Your task to perform on an android device: check the backup settings in the google photos Image 0: 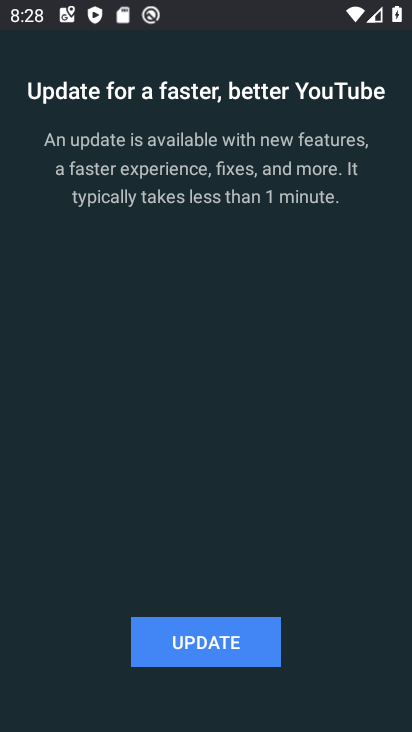
Step 0: press home button
Your task to perform on an android device: check the backup settings in the google photos Image 1: 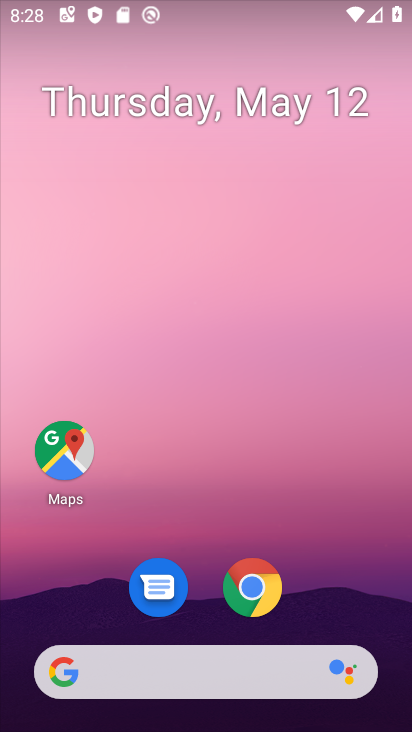
Step 1: drag from (333, 625) to (355, 109)
Your task to perform on an android device: check the backup settings in the google photos Image 2: 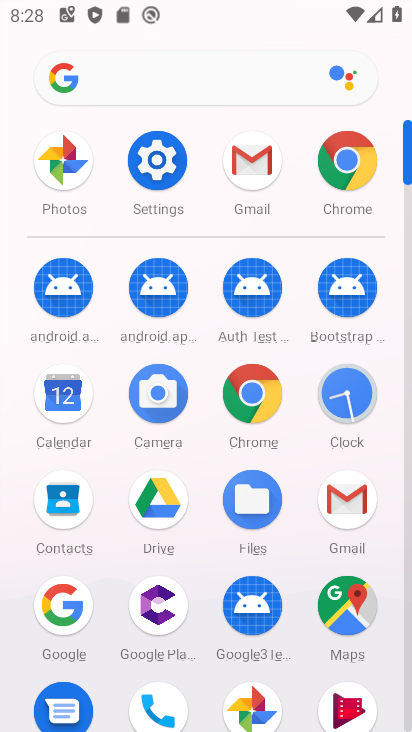
Step 2: click (259, 698)
Your task to perform on an android device: check the backup settings in the google photos Image 3: 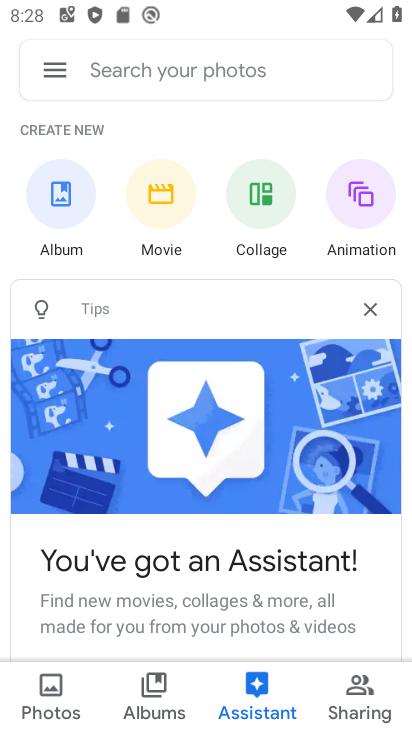
Step 3: click (44, 64)
Your task to perform on an android device: check the backup settings in the google photos Image 4: 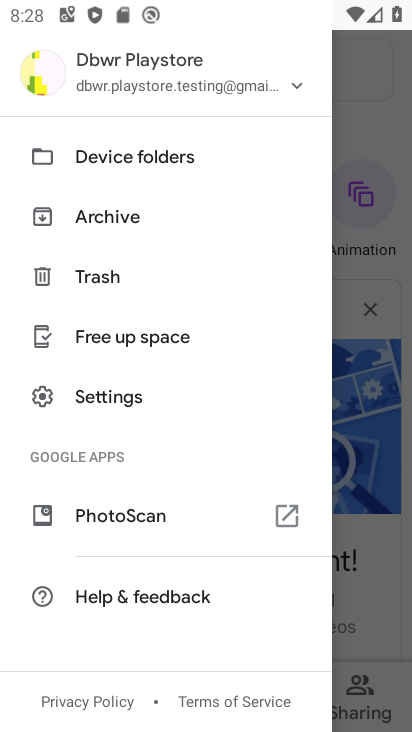
Step 4: click (147, 396)
Your task to perform on an android device: check the backup settings in the google photos Image 5: 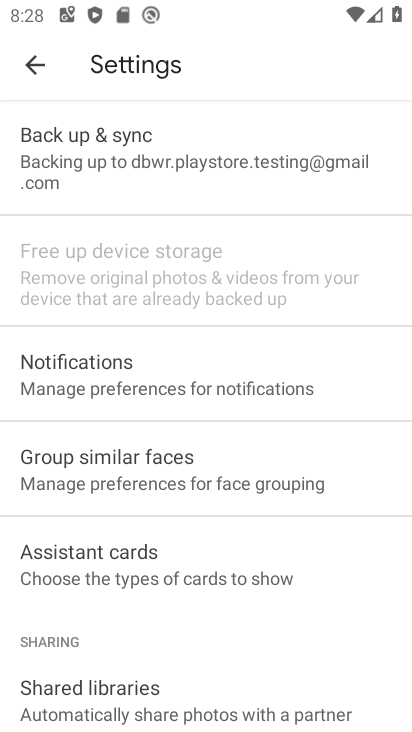
Step 5: click (141, 175)
Your task to perform on an android device: check the backup settings in the google photos Image 6: 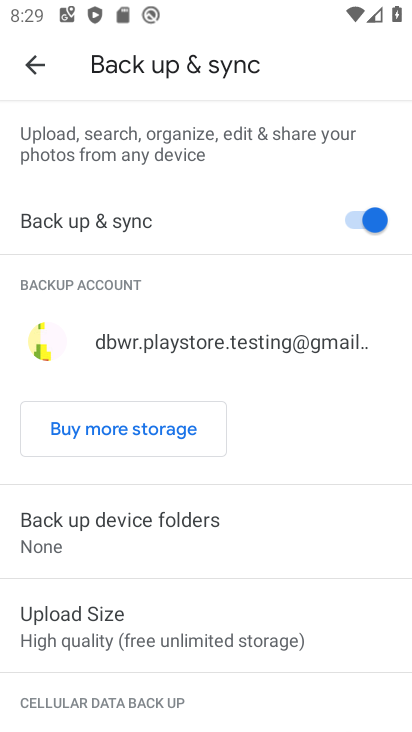
Step 6: task complete